Your task to perform on an android device: turn off picture-in-picture Image 0: 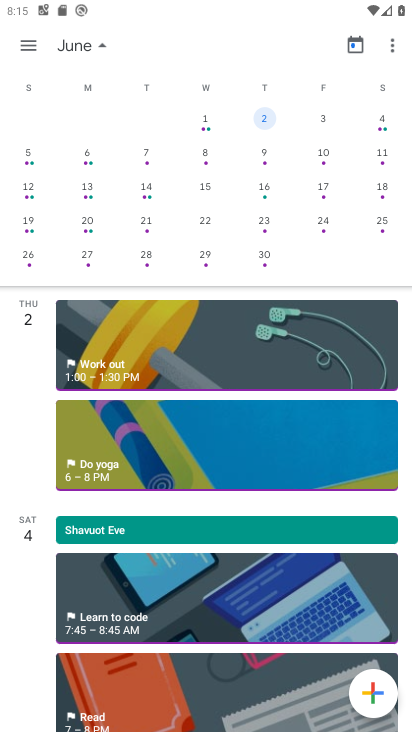
Step 0: press home button
Your task to perform on an android device: turn off picture-in-picture Image 1: 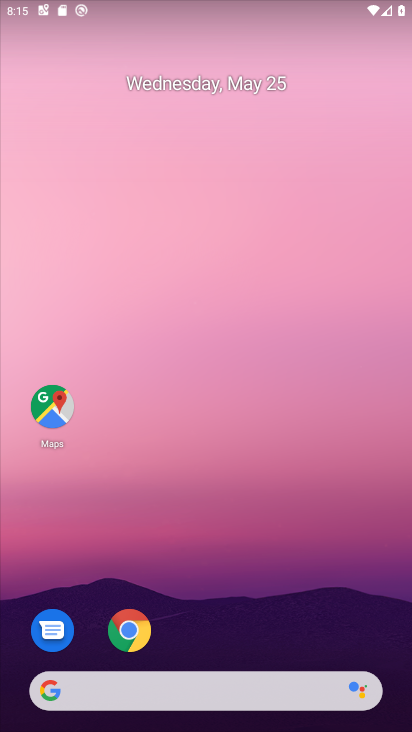
Step 1: click (124, 626)
Your task to perform on an android device: turn off picture-in-picture Image 2: 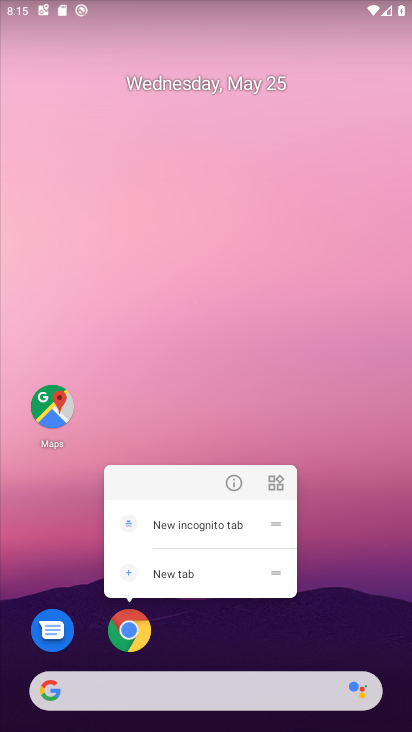
Step 2: click (234, 483)
Your task to perform on an android device: turn off picture-in-picture Image 3: 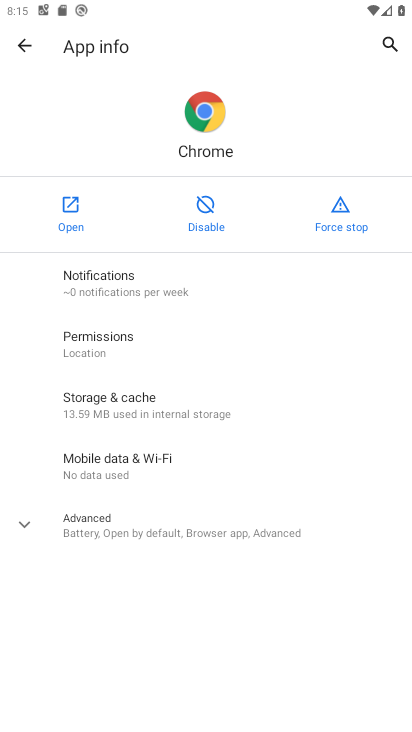
Step 3: click (105, 532)
Your task to perform on an android device: turn off picture-in-picture Image 4: 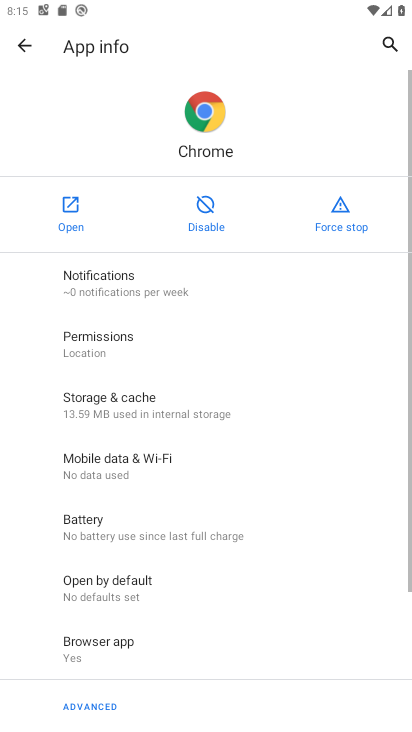
Step 4: drag from (285, 631) to (315, 365)
Your task to perform on an android device: turn off picture-in-picture Image 5: 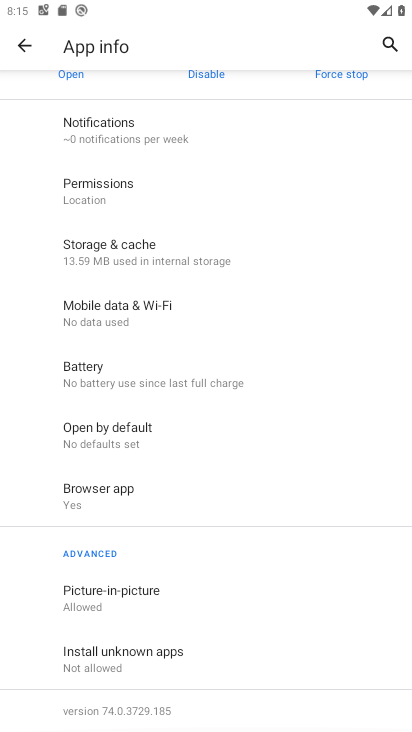
Step 5: click (116, 609)
Your task to perform on an android device: turn off picture-in-picture Image 6: 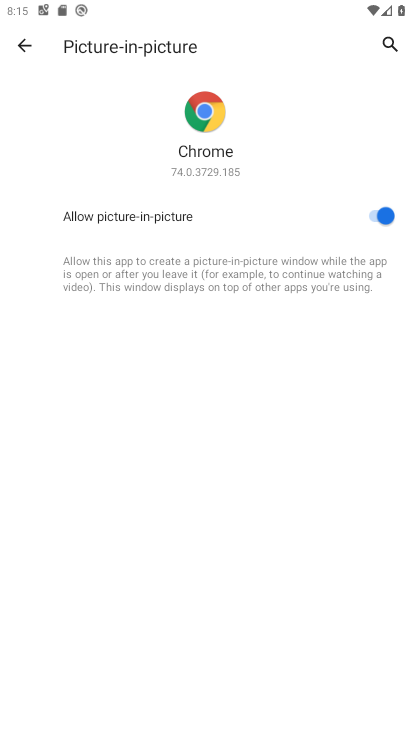
Step 6: click (383, 221)
Your task to perform on an android device: turn off picture-in-picture Image 7: 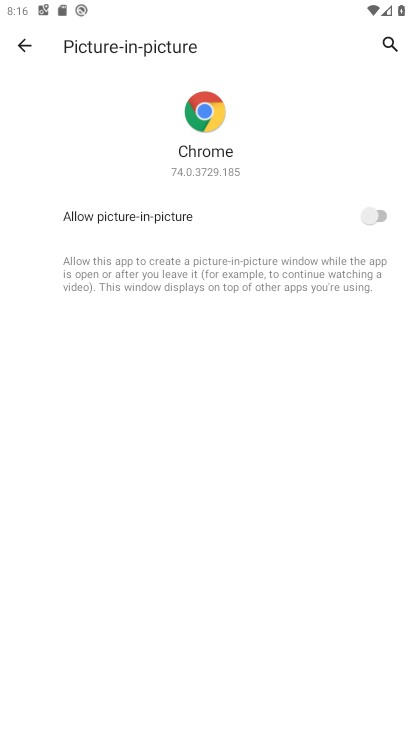
Step 7: task complete